Your task to perform on an android device: Go to battery settings Image 0: 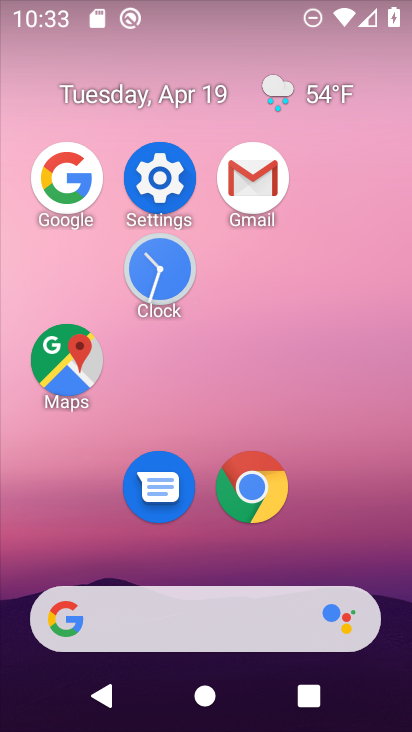
Step 0: click (165, 177)
Your task to perform on an android device: Go to battery settings Image 1: 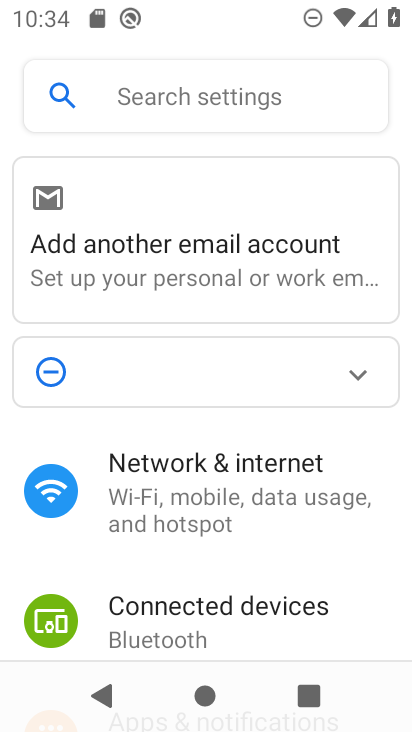
Step 1: drag from (310, 419) to (388, 3)
Your task to perform on an android device: Go to battery settings Image 2: 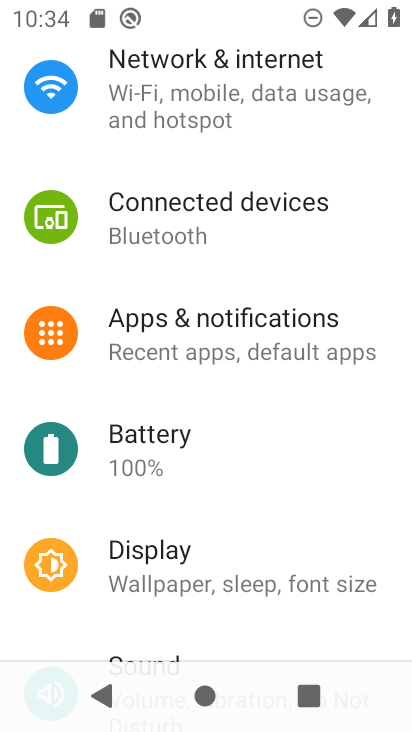
Step 2: drag from (276, 493) to (308, 334)
Your task to perform on an android device: Go to battery settings Image 3: 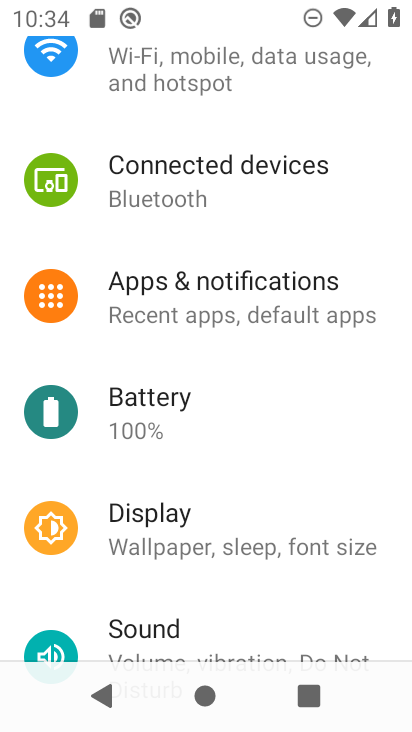
Step 3: click (210, 402)
Your task to perform on an android device: Go to battery settings Image 4: 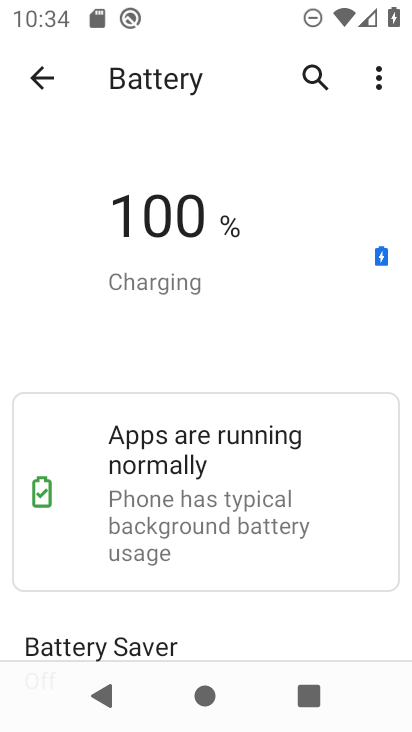
Step 4: task complete